Your task to perform on an android device: Open the map Image 0: 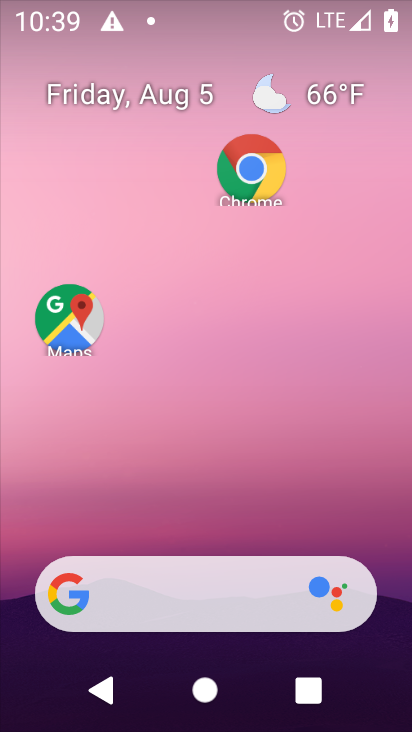
Step 0: click (37, 318)
Your task to perform on an android device: Open the map Image 1: 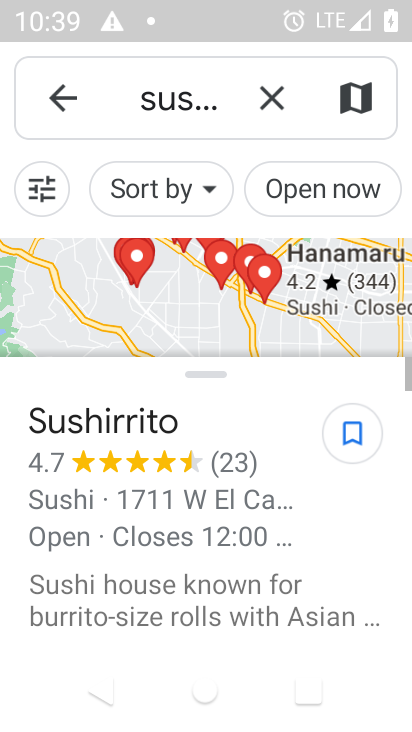
Step 1: click (53, 87)
Your task to perform on an android device: Open the map Image 2: 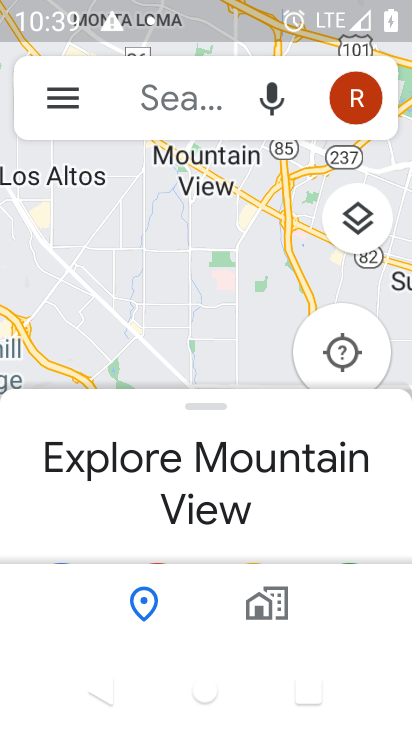
Step 2: task complete